Your task to perform on an android device: turn vacation reply on in the gmail app Image 0: 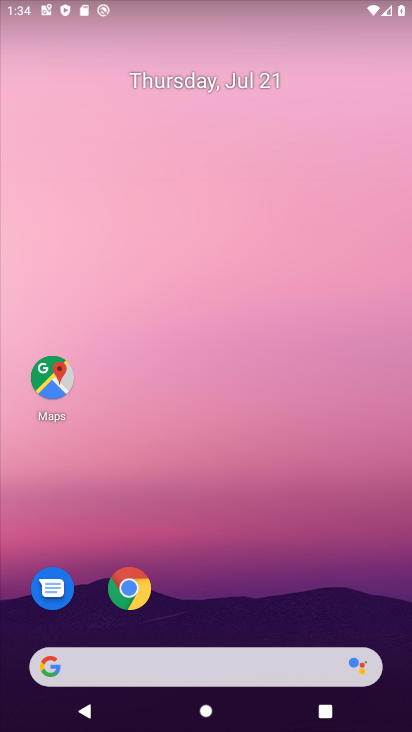
Step 0: drag from (311, 625) to (218, 141)
Your task to perform on an android device: turn vacation reply on in the gmail app Image 1: 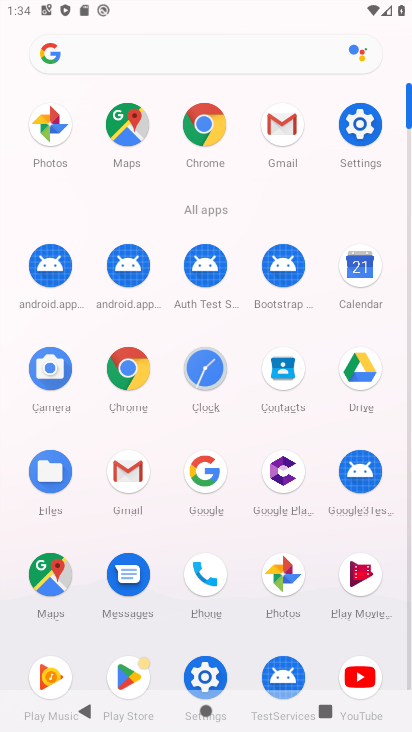
Step 1: click (276, 136)
Your task to perform on an android device: turn vacation reply on in the gmail app Image 2: 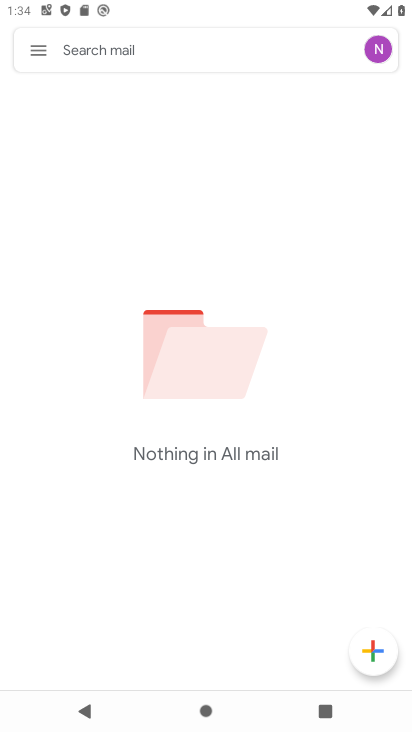
Step 2: click (40, 48)
Your task to perform on an android device: turn vacation reply on in the gmail app Image 3: 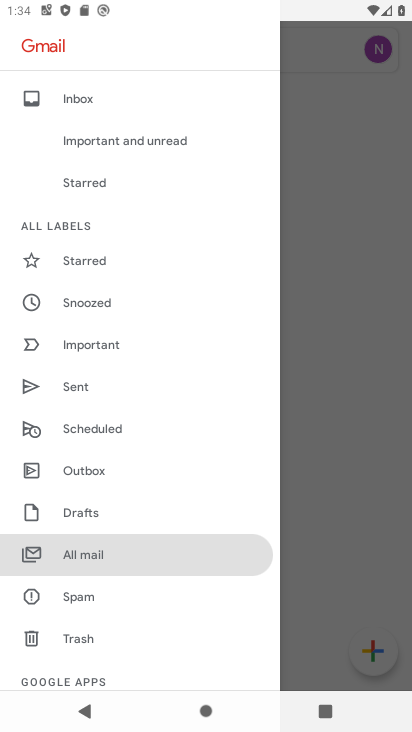
Step 3: drag from (150, 636) to (119, 254)
Your task to perform on an android device: turn vacation reply on in the gmail app Image 4: 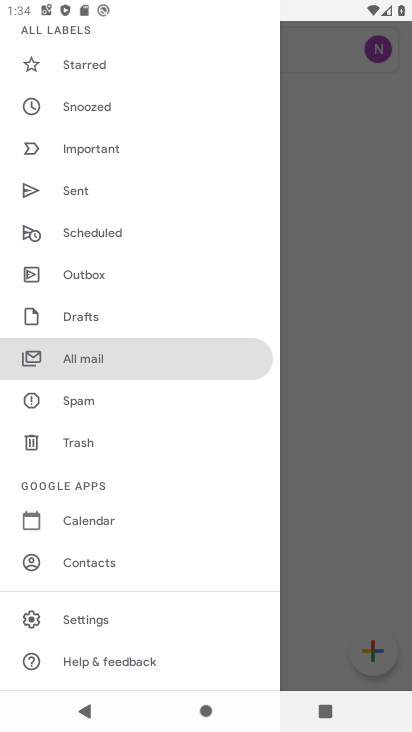
Step 4: click (117, 627)
Your task to perform on an android device: turn vacation reply on in the gmail app Image 5: 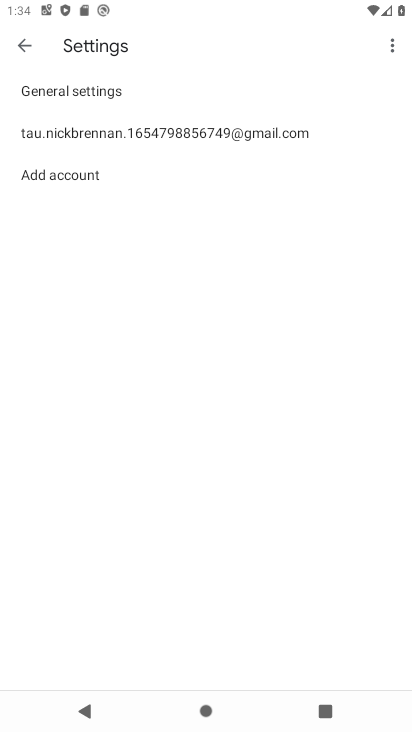
Step 5: click (210, 133)
Your task to perform on an android device: turn vacation reply on in the gmail app Image 6: 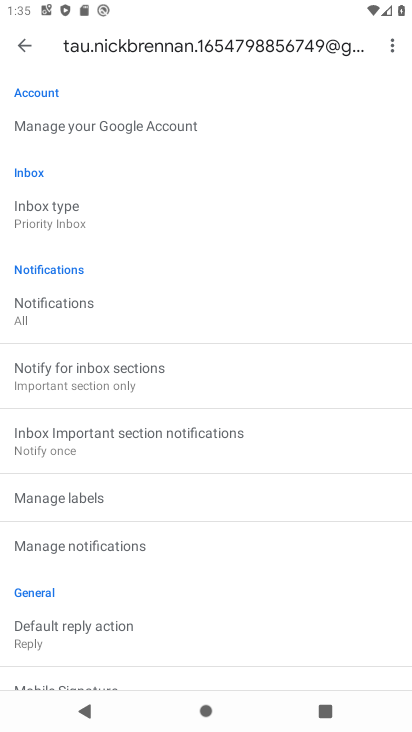
Step 6: drag from (116, 664) to (72, 193)
Your task to perform on an android device: turn vacation reply on in the gmail app Image 7: 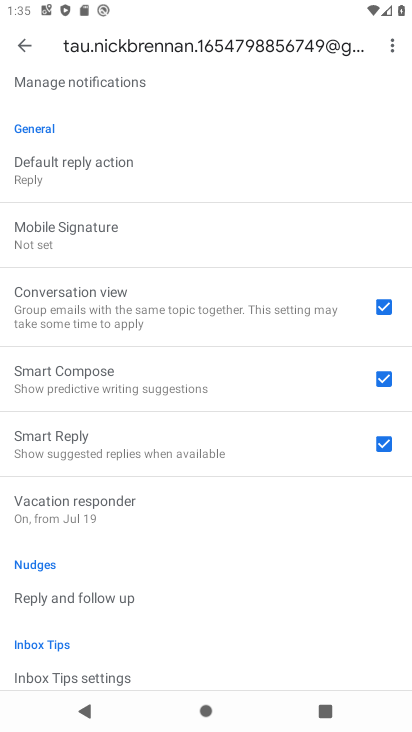
Step 7: click (131, 522)
Your task to perform on an android device: turn vacation reply on in the gmail app Image 8: 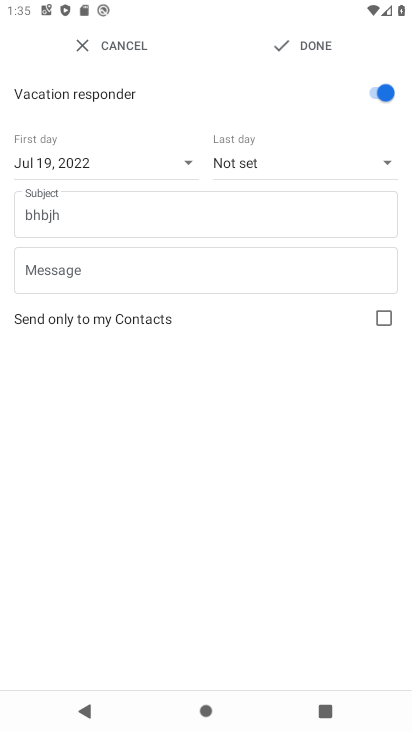
Step 8: click (169, 208)
Your task to perform on an android device: turn vacation reply on in the gmail app Image 9: 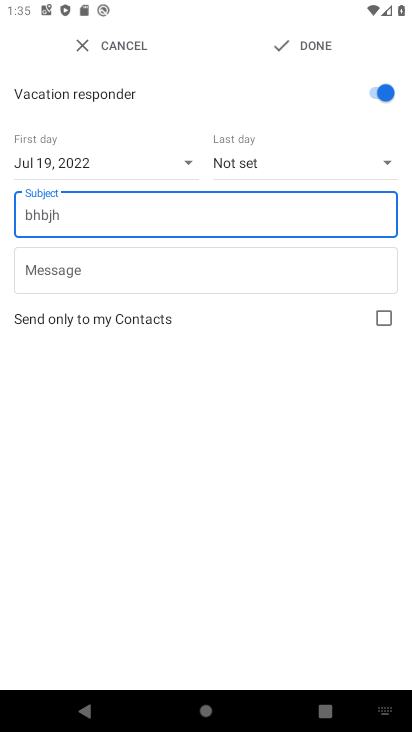
Step 9: type "vjghgvgj"
Your task to perform on an android device: turn vacation reply on in the gmail app Image 10: 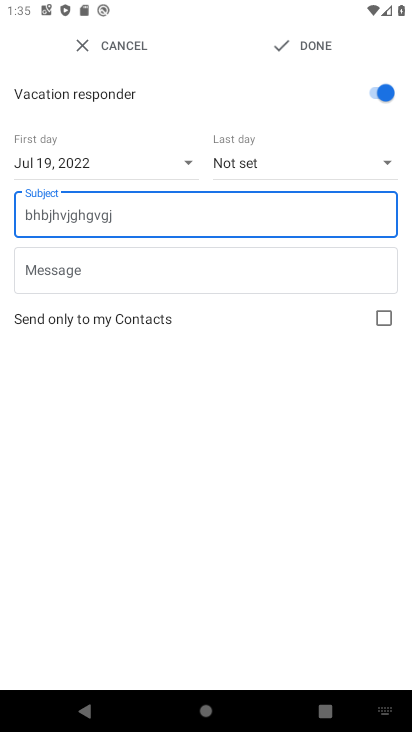
Step 10: click (322, 49)
Your task to perform on an android device: turn vacation reply on in the gmail app Image 11: 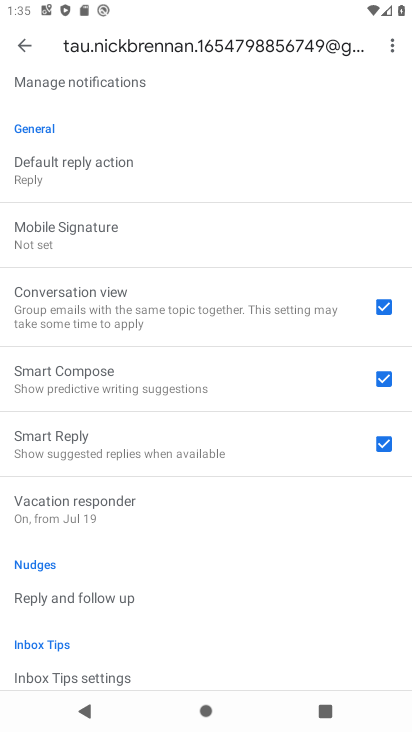
Step 11: task complete